Your task to perform on an android device: set the stopwatch Image 0: 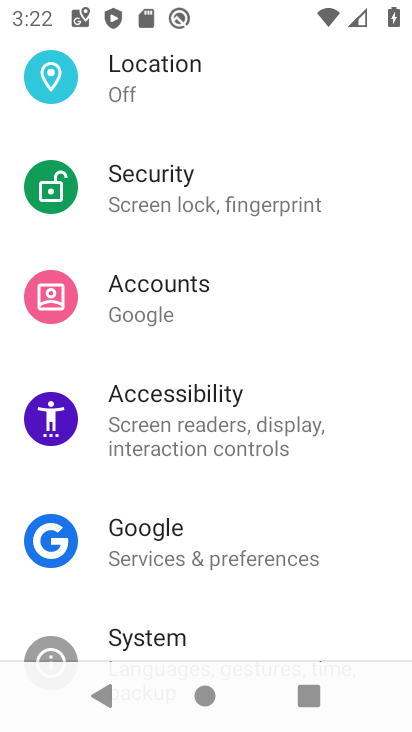
Step 0: press home button
Your task to perform on an android device: set the stopwatch Image 1: 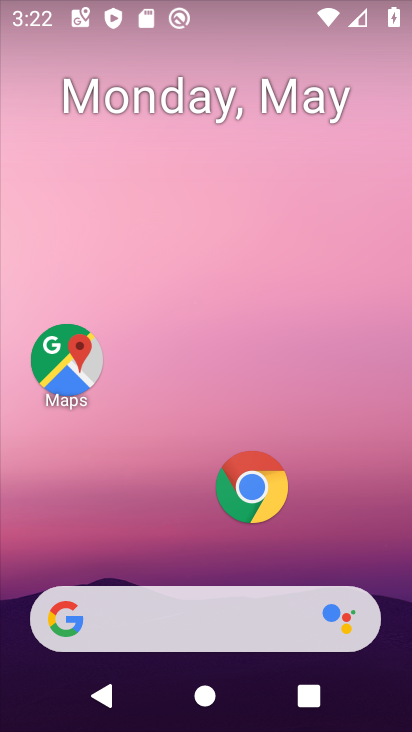
Step 1: drag from (288, 520) to (293, 79)
Your task to perform on an android device: set the stopwatch Image 2: 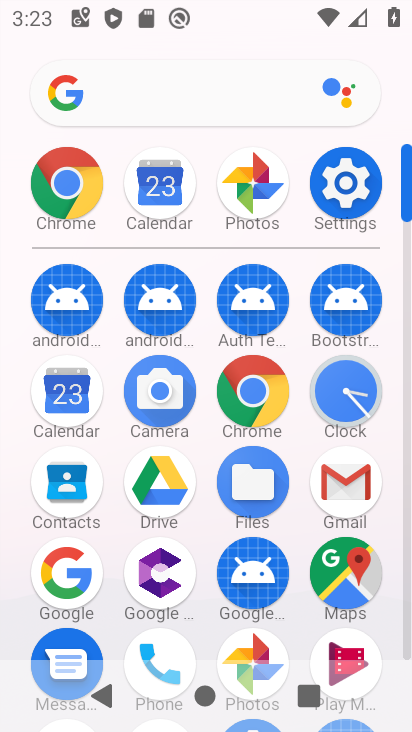
Step 2: click (335, 396)
Your task to perform on an android device: set the stopwatch Image 3: 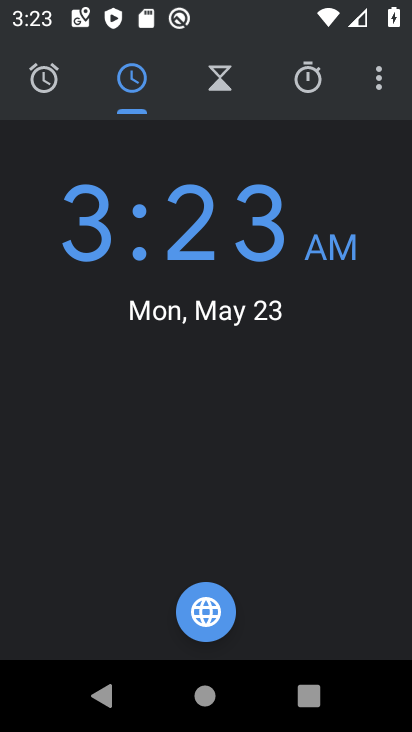
Step 3: click (309, 86)
Your task to perform on an android device: set the stopwatch Image 4: 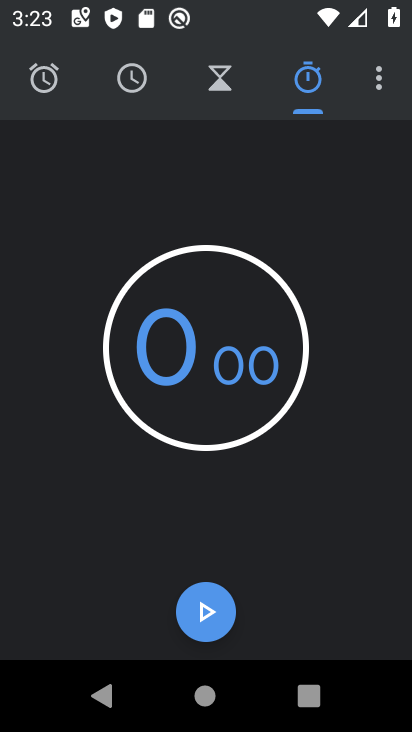
Step 4: click (204, 614)
Your task to perform on an android device: set the stopwatch Image 5: 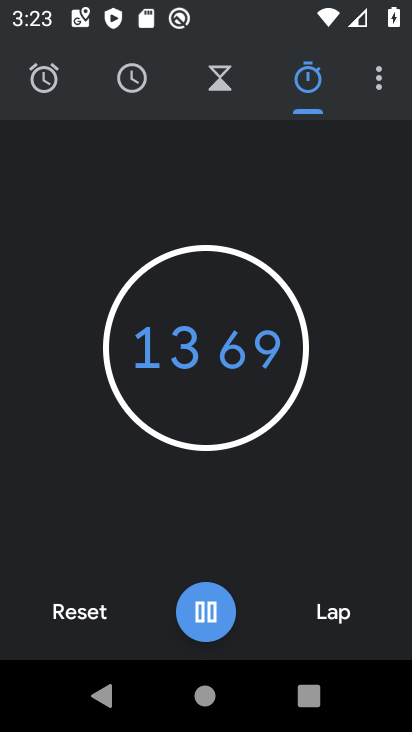
Step 5: task complete